Your task to perform on an android device: change notifications settings Image 0: 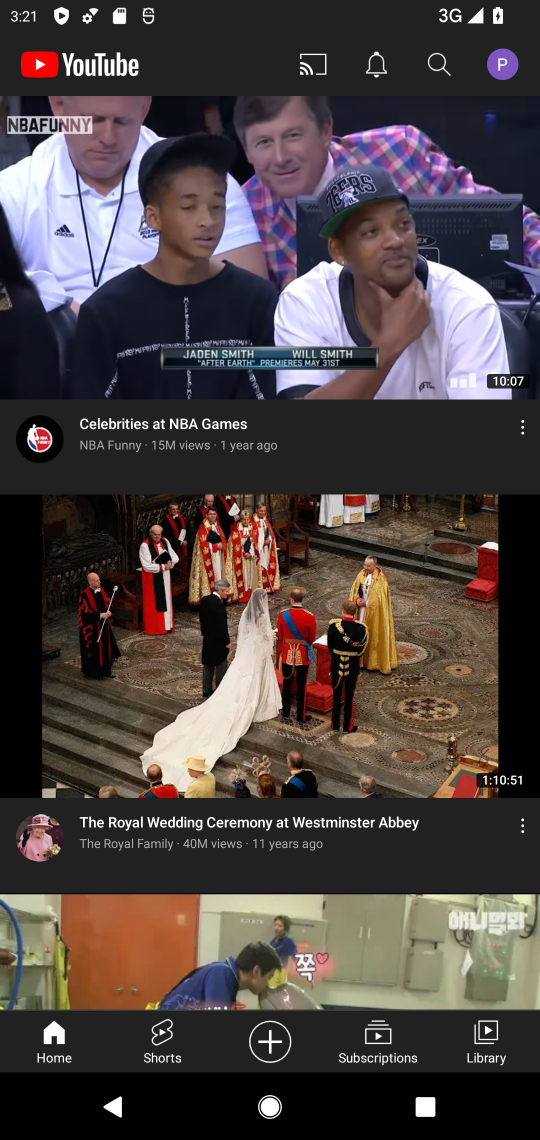
Step 0: task complete